Your task to perform on an android device: snooze an email in the gmail app Image 0: 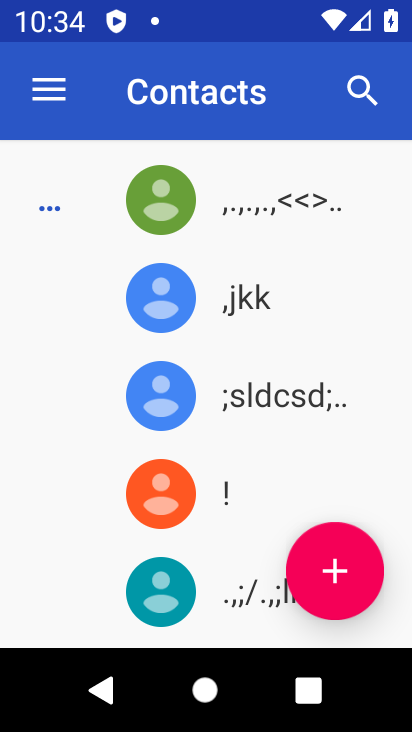
Step 0: press home button
Your task to perform on an android device: snooze an email in the gmail app Image 1: 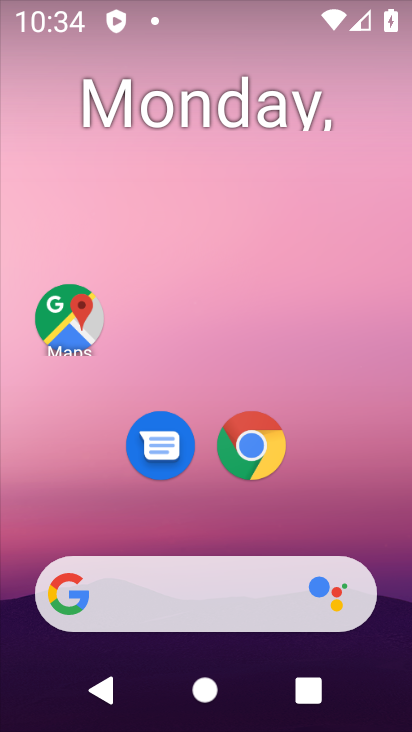
Step 1: drag from (315, 450) to (97, 65)
Your task to perform on an android device: snooze an email in the gmail app Image 2: 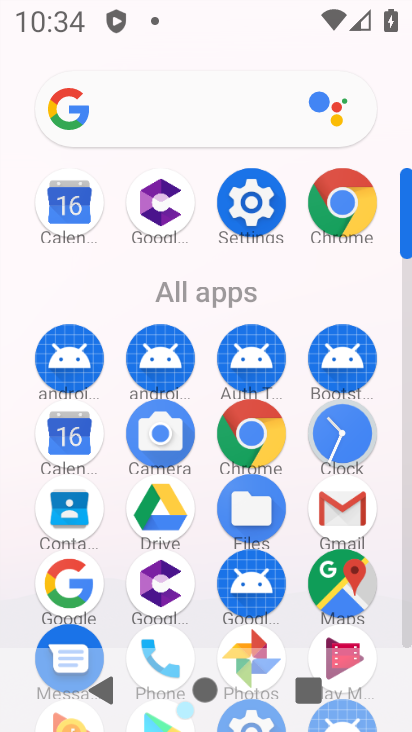
Step 2: click (360, 519)
Your task to perform on an android device: snooze an email in the gmail app Image 3: 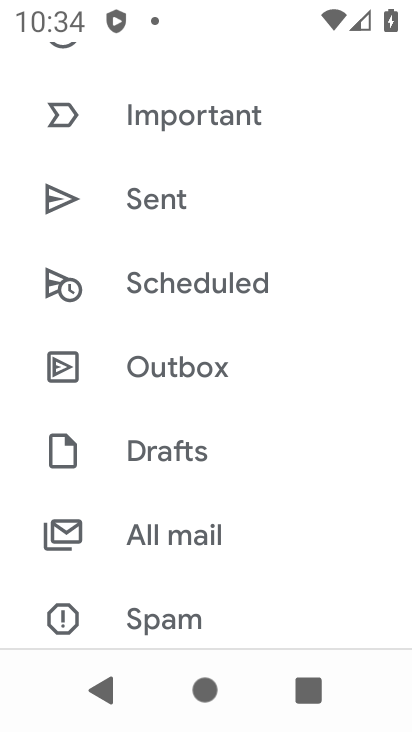
Step 3: task complete